Your task to perform on an android device: What's the weather going to be tomorrow? Image 0: 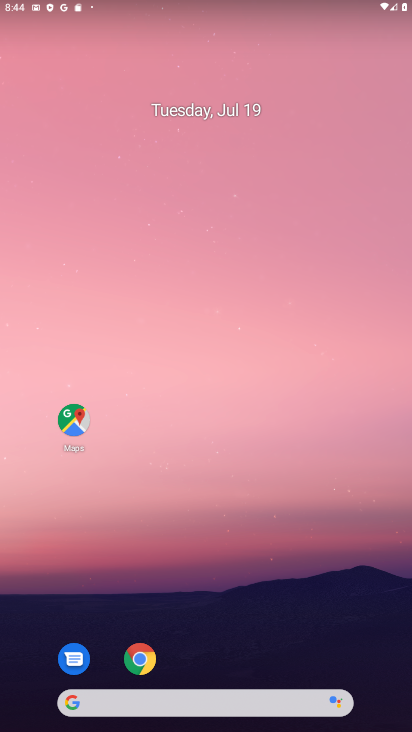
Step 0: press home button
Your task to perform on an android device: What's the weather going to be tomorrow? Image 1: 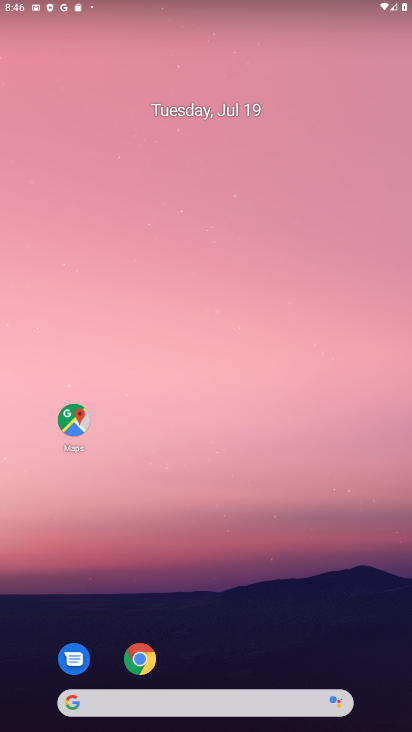
Step 1: drag from (330, 586) to (307, 0)
Your task to perform on an android device: What's the weather going to be tomorrow? Image 2: 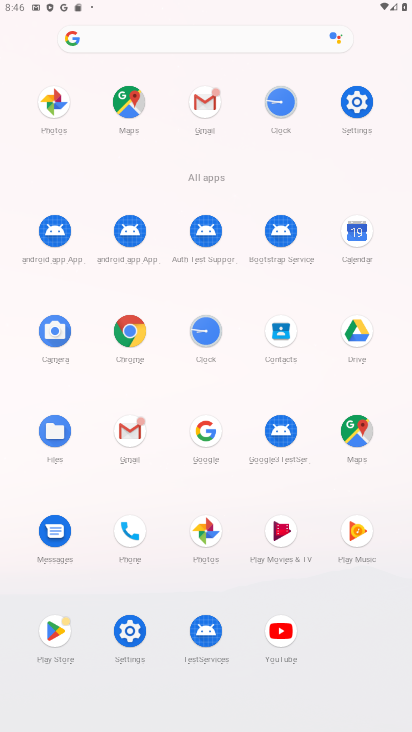
Step 2: click (125, 341)
Your task to perform on an android device: What's the weather going to be tomorrow? Image 3: 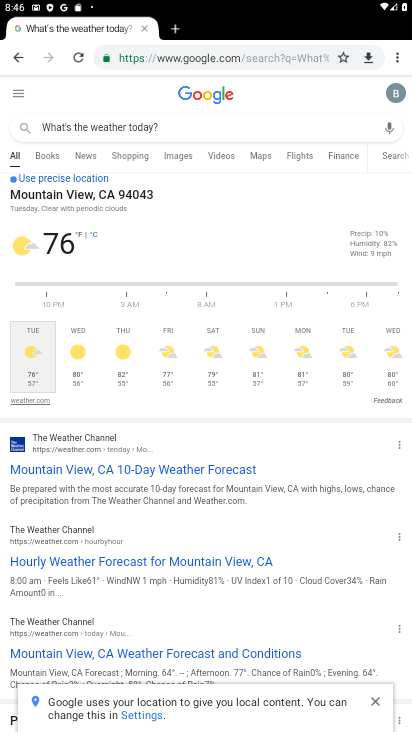
Step 3: click (142, 64)
Your task to perform on an android device: What's the weather going to be tomorrow? Image 4: 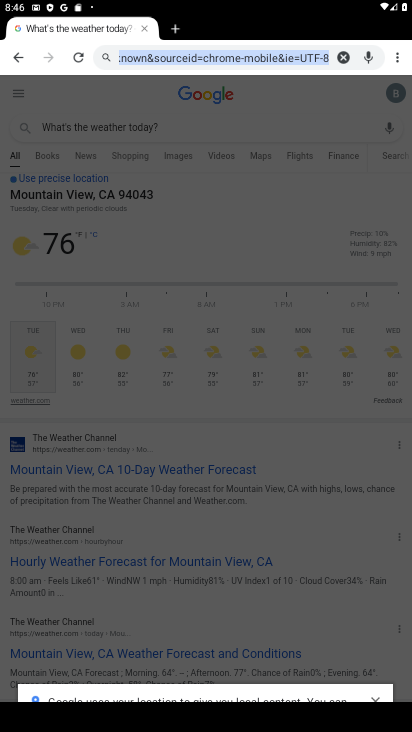
Step 4: click (344, 56)
Your task to perform on an android device: What's the weather going to be tomorrow? Image 5: 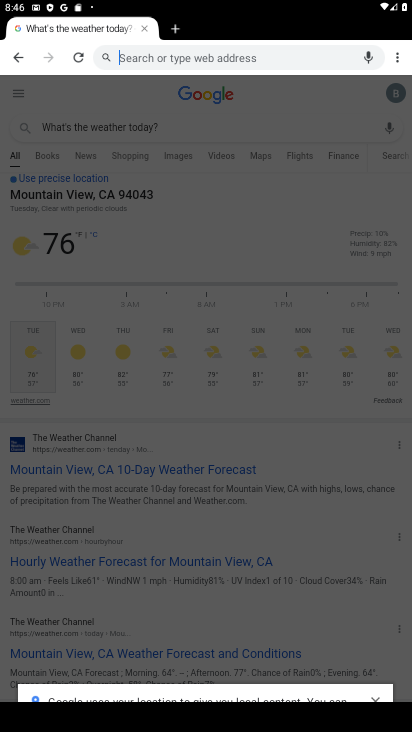
Step 5: click (17, 728)
Your task to perform on an android device: What's the weather going to be tomorrow? Image 6: 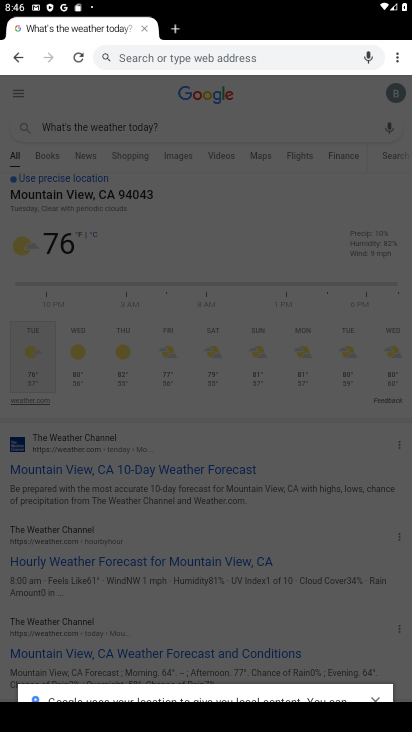
Step 6: type "What's the weather going to be tomorrow?"
Your task to perform on an android device: What's the weather going to be tomorrow? Image 7: 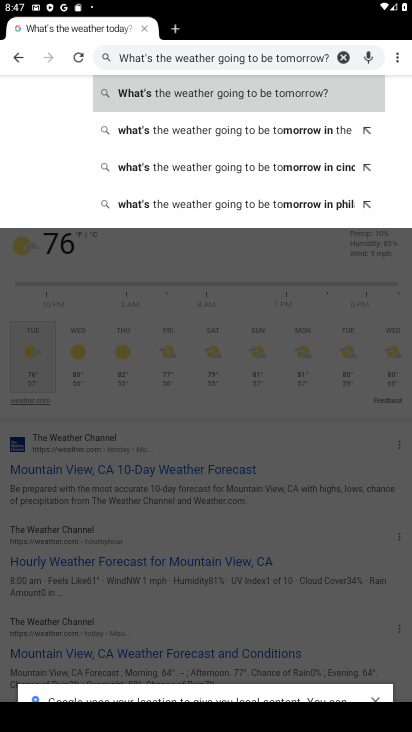
Step 7: type "What's the weather going to be tomorrow?"
Your task to perform on an android device: What's the weather going to be tomorrow? Image 8: 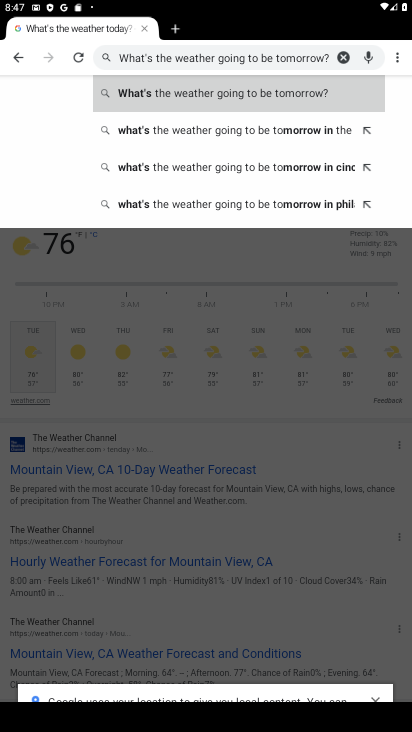
Step 8: click (281, 86)
Your task to perform on an android device: What's the weather going to be tomorrow? Image 9: 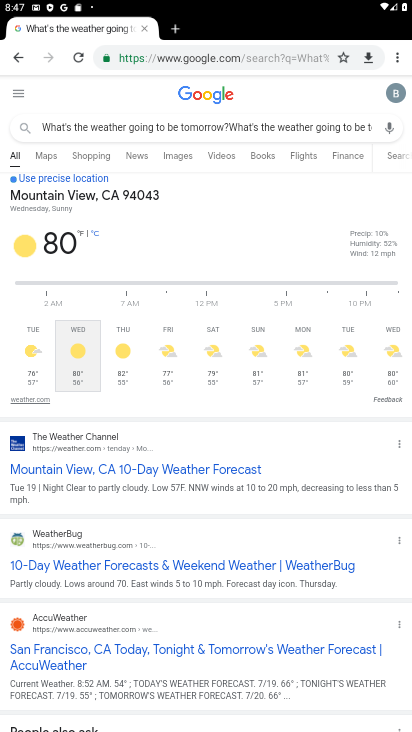
Step 9: task complete